Your task to perform on an android device: Add amazon basics triple a to the cart on target Image 0: 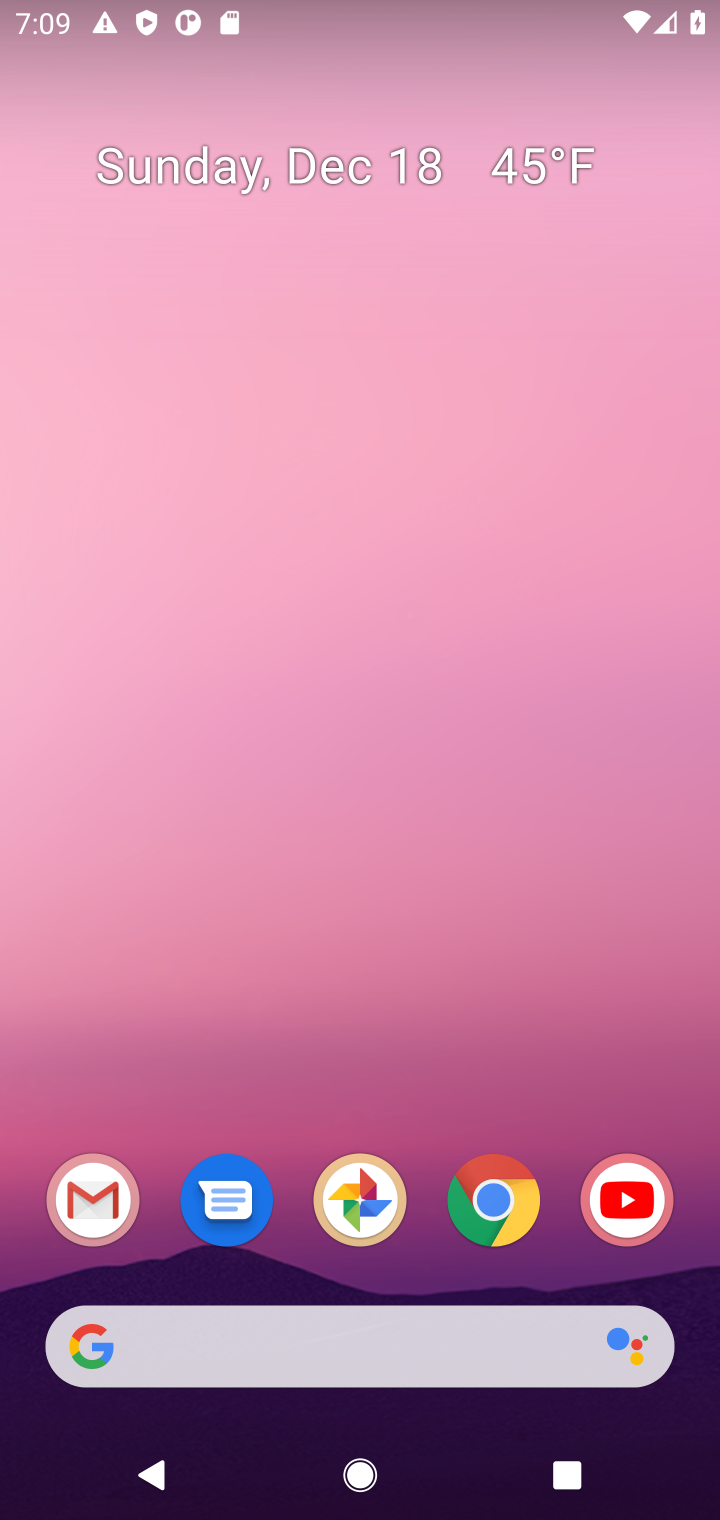
Step 0: click (503, 1220)
Your task to perform on an android device: Add amazon basics triple a to the cart on target Image 1: 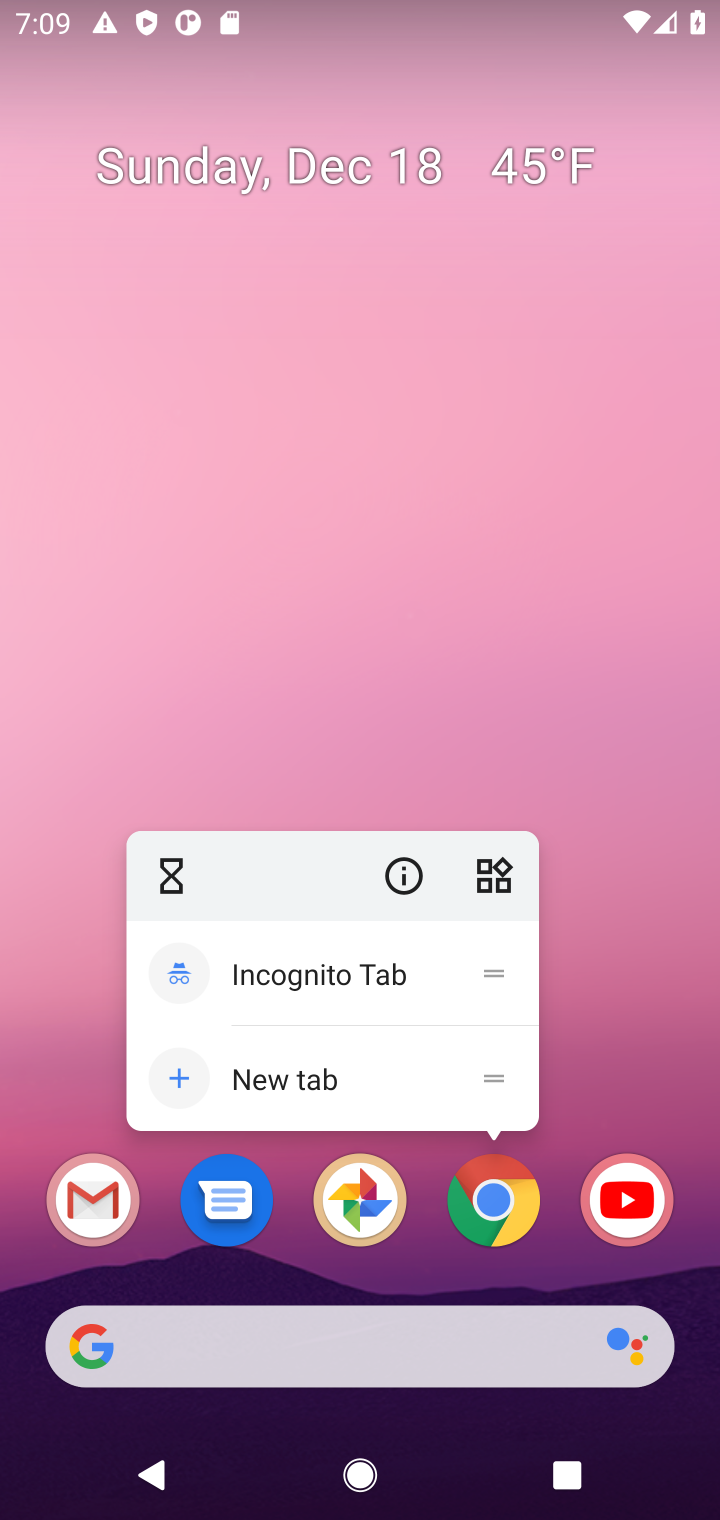
Step 1: click (499, 1213)
Your task to perform on an android device: Add amazon basics triple a to the cart on target Image 2: 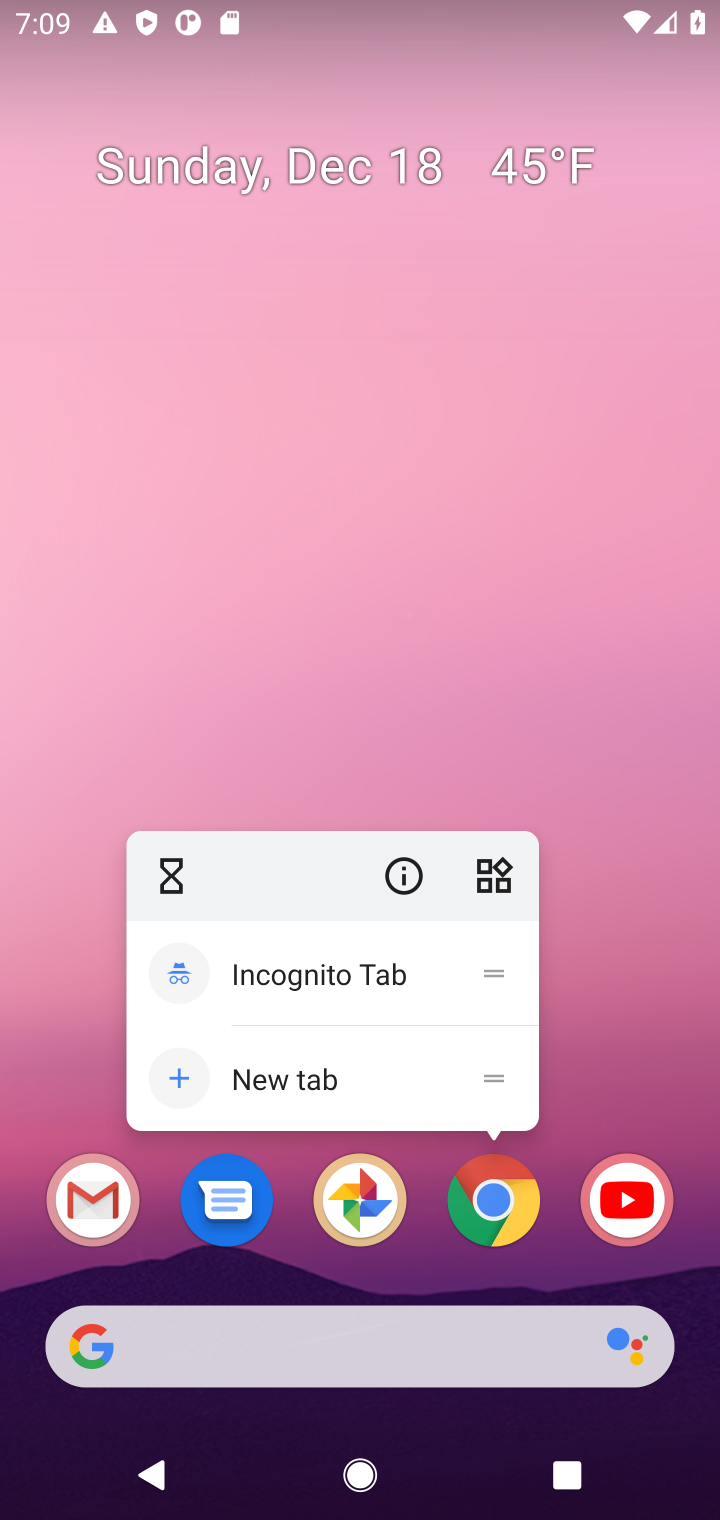
Step 2: click (499, 1213)
Your task to perform on an android device: Add amazon basics triple a to the cart on target Image 3: 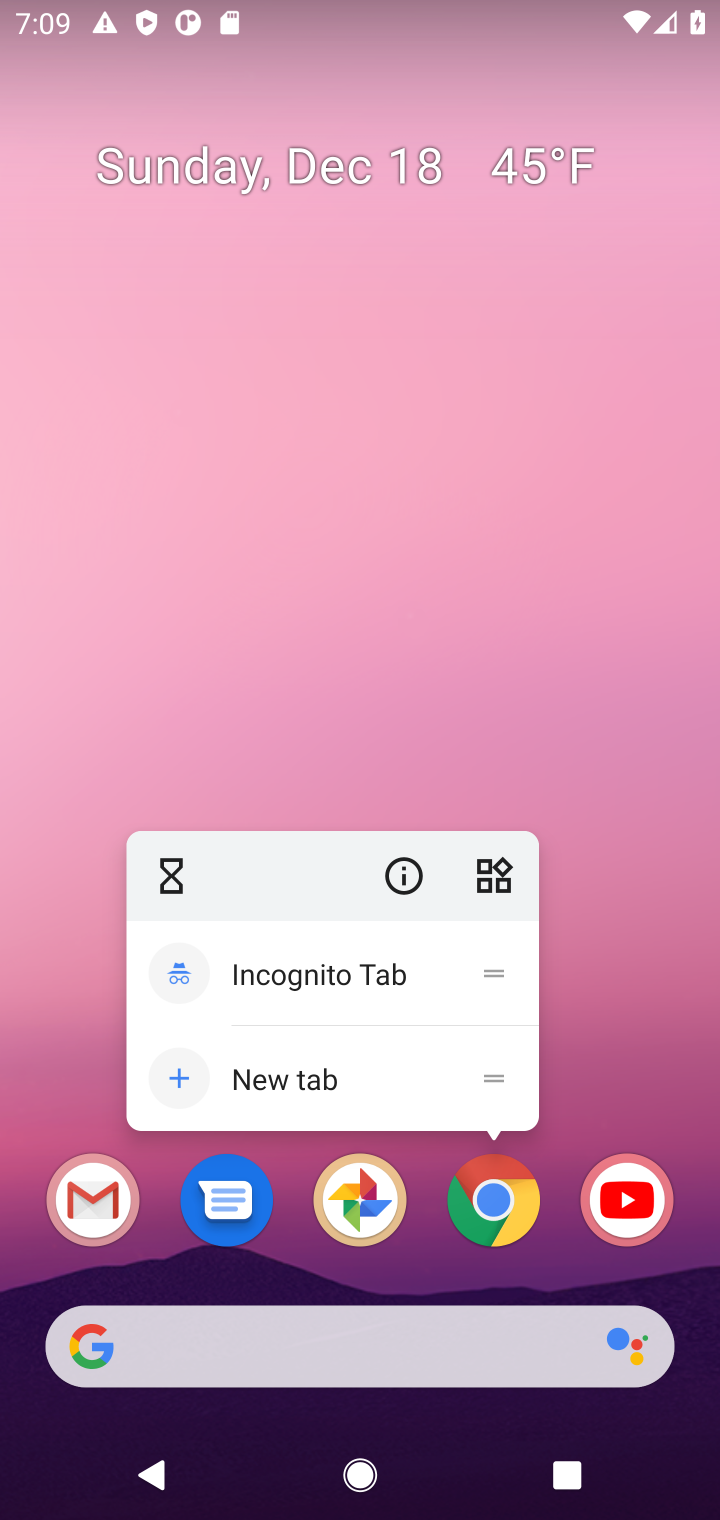
Step 3: click (499, 1213)
Your task to perform on an android device: Add amazon basics triple a to the cart on target Image 4: 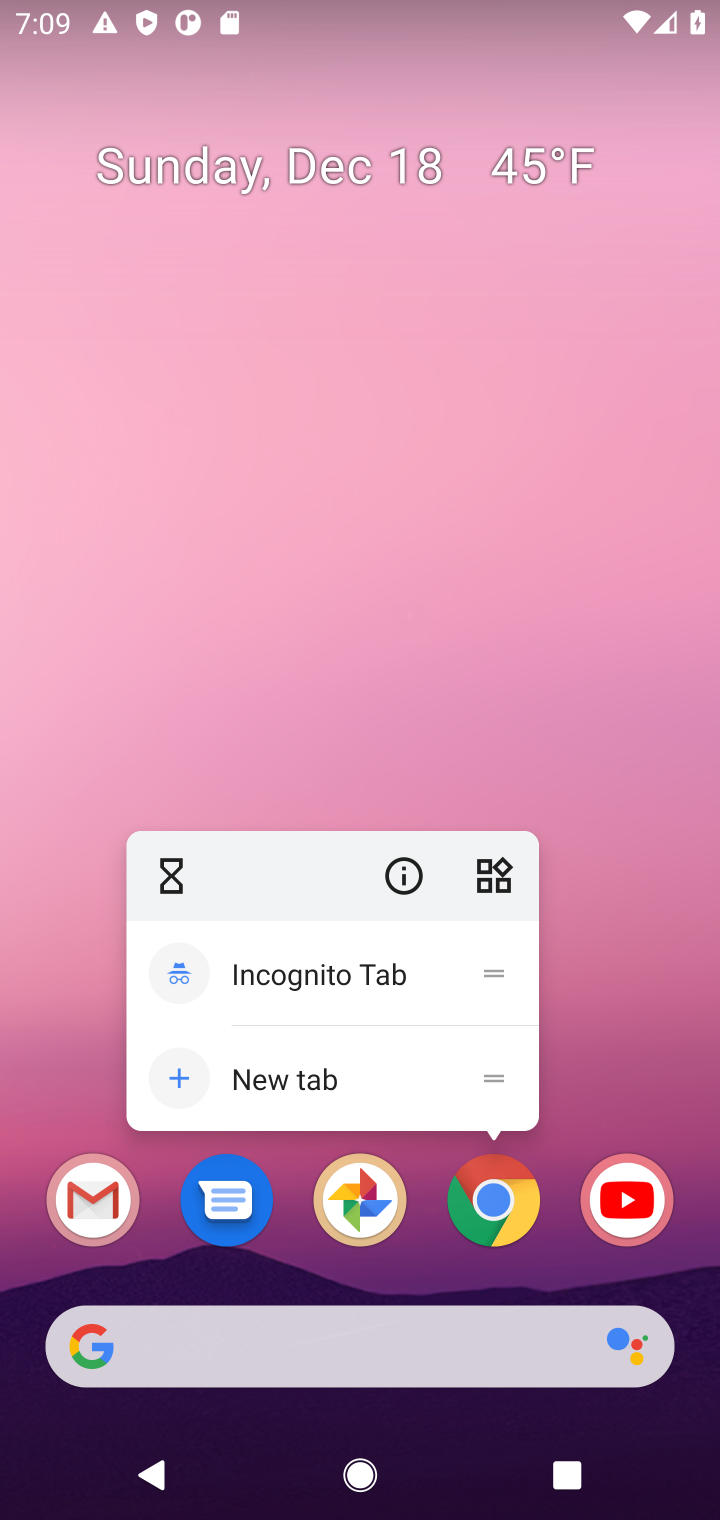
Step 4: click (499, 1213)
Your task to perform on an android device: Add amazon basics triple a to the cart on target Image 5: 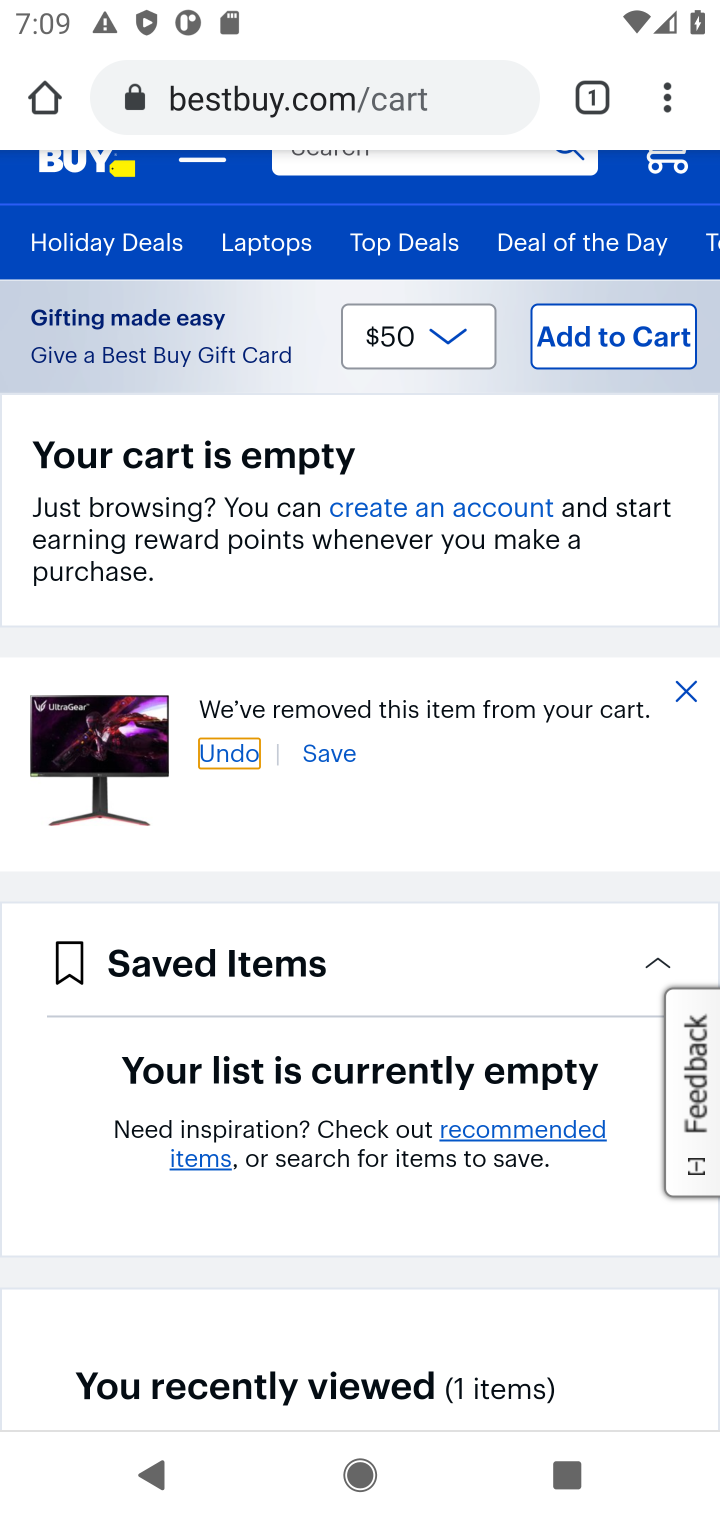
Step 5: click (325, 104)
Your task to perform on an android device: Add amazon basics triple a to the cart on target Image 6: 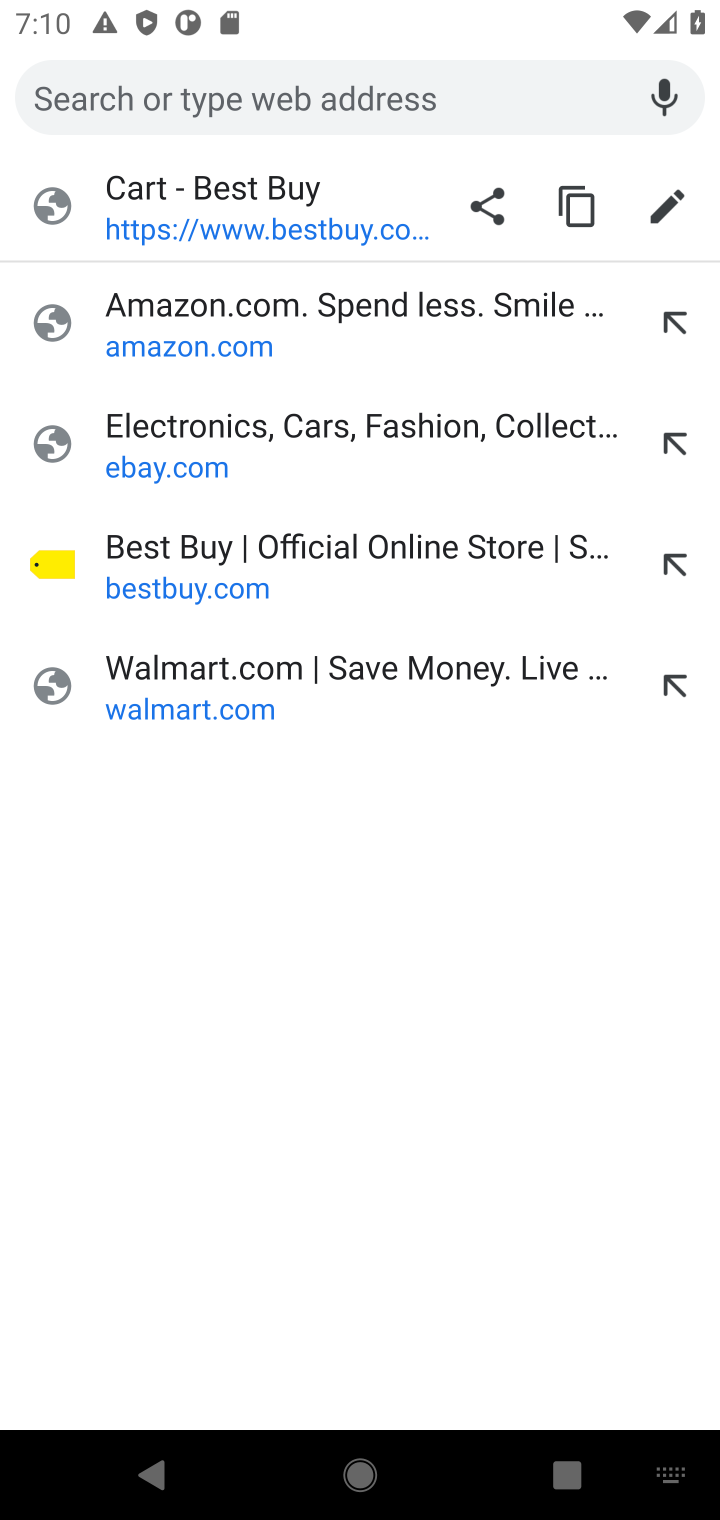
Step 6: type "target.com"
Your task to perform on an android device: Add amazon basics triple a to the cart on target Image 7: 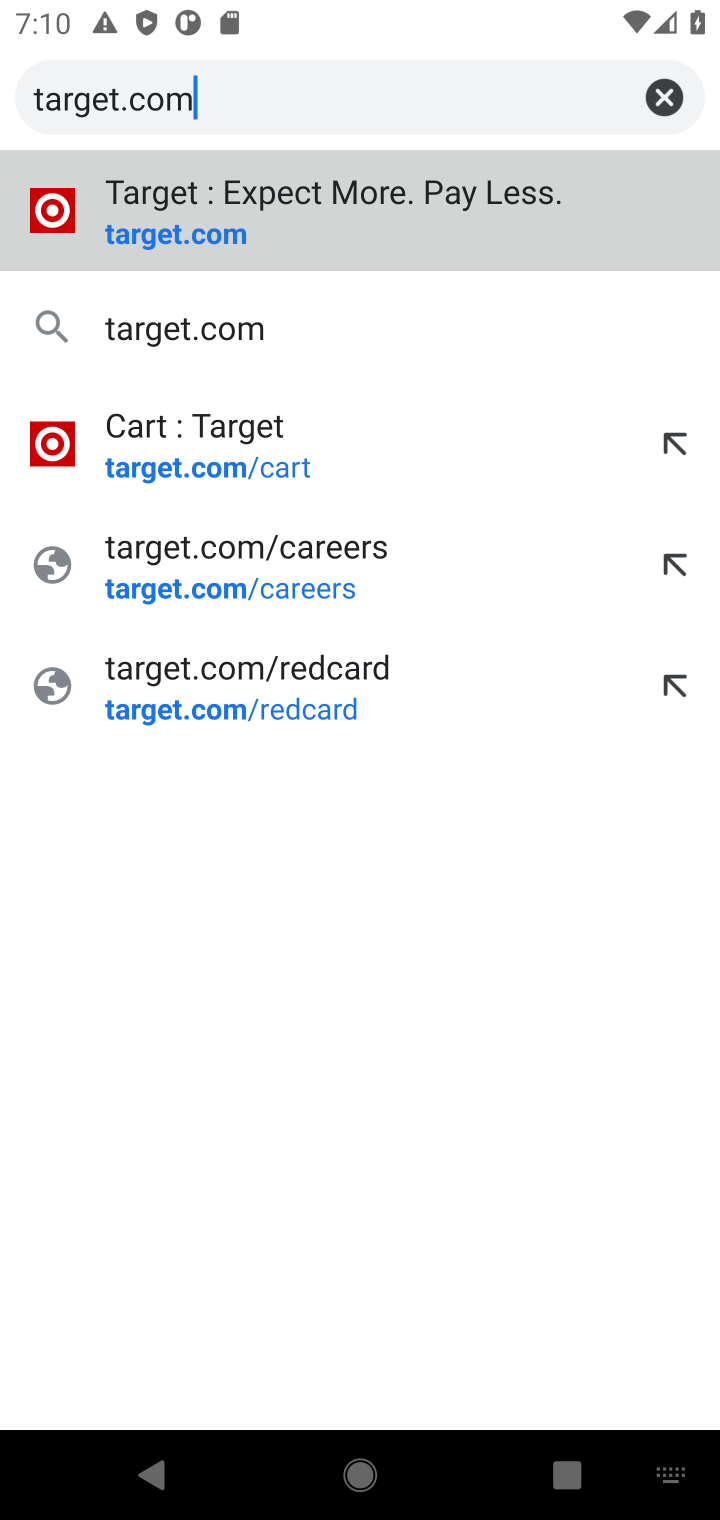
Step 7: click (182, 227)
Your task to perform on an android device: Add amazon basics triple a to the cart on target Image 8: 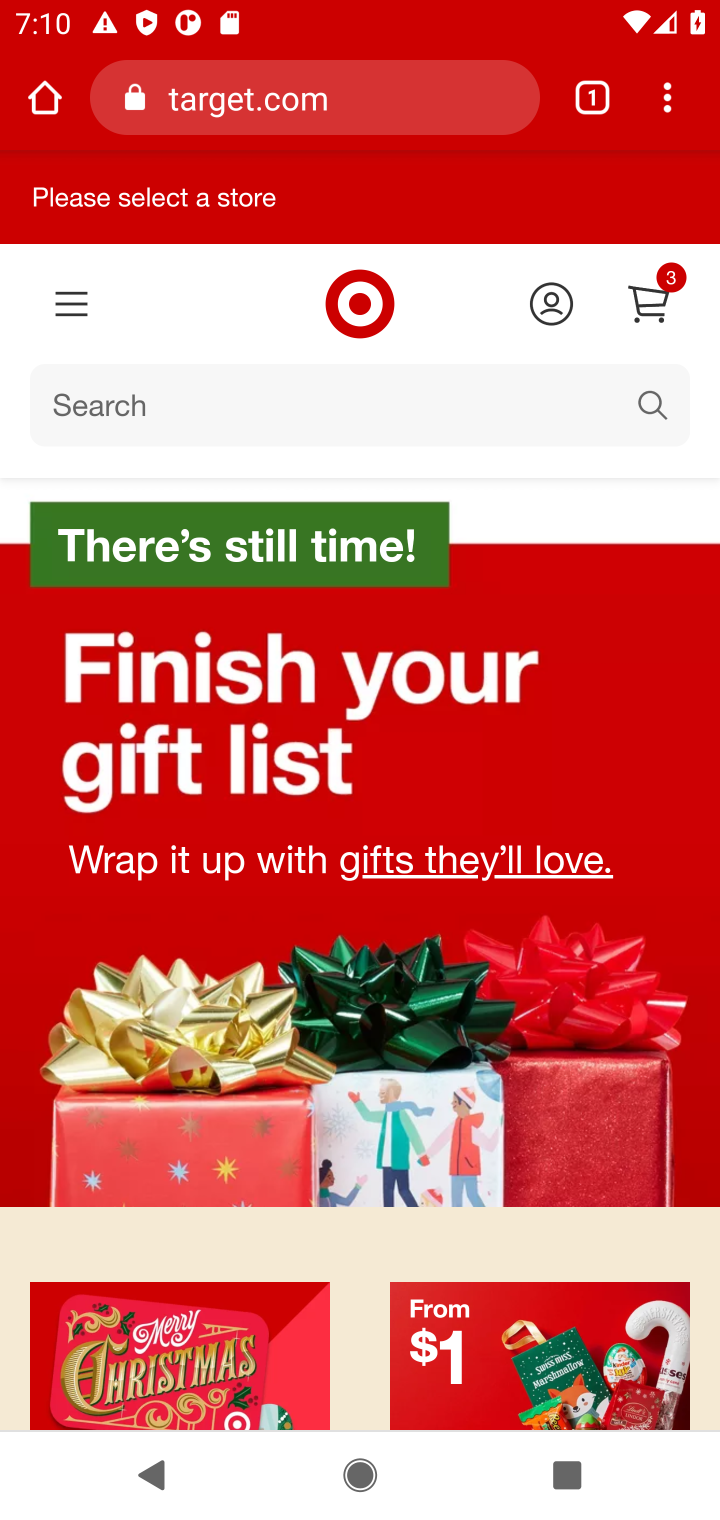
Step 8: click (77, 426)
Your task to perform on an android device: Add amazon basics triple a to the cart on target Image 9: 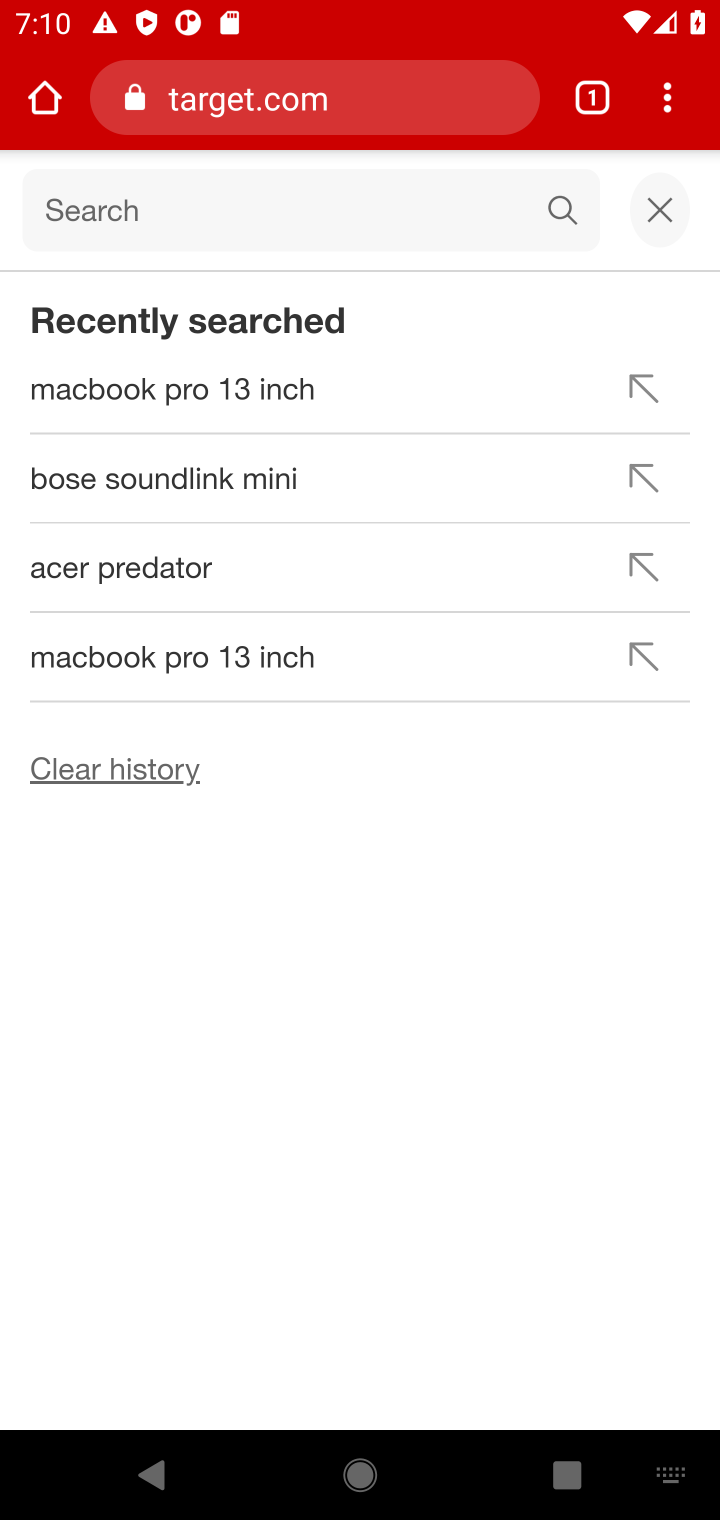
Step 9: type "amazon basics triple a"
Your task to perform on an android device: Add amazon basics triple a to the cart on target Image 10: 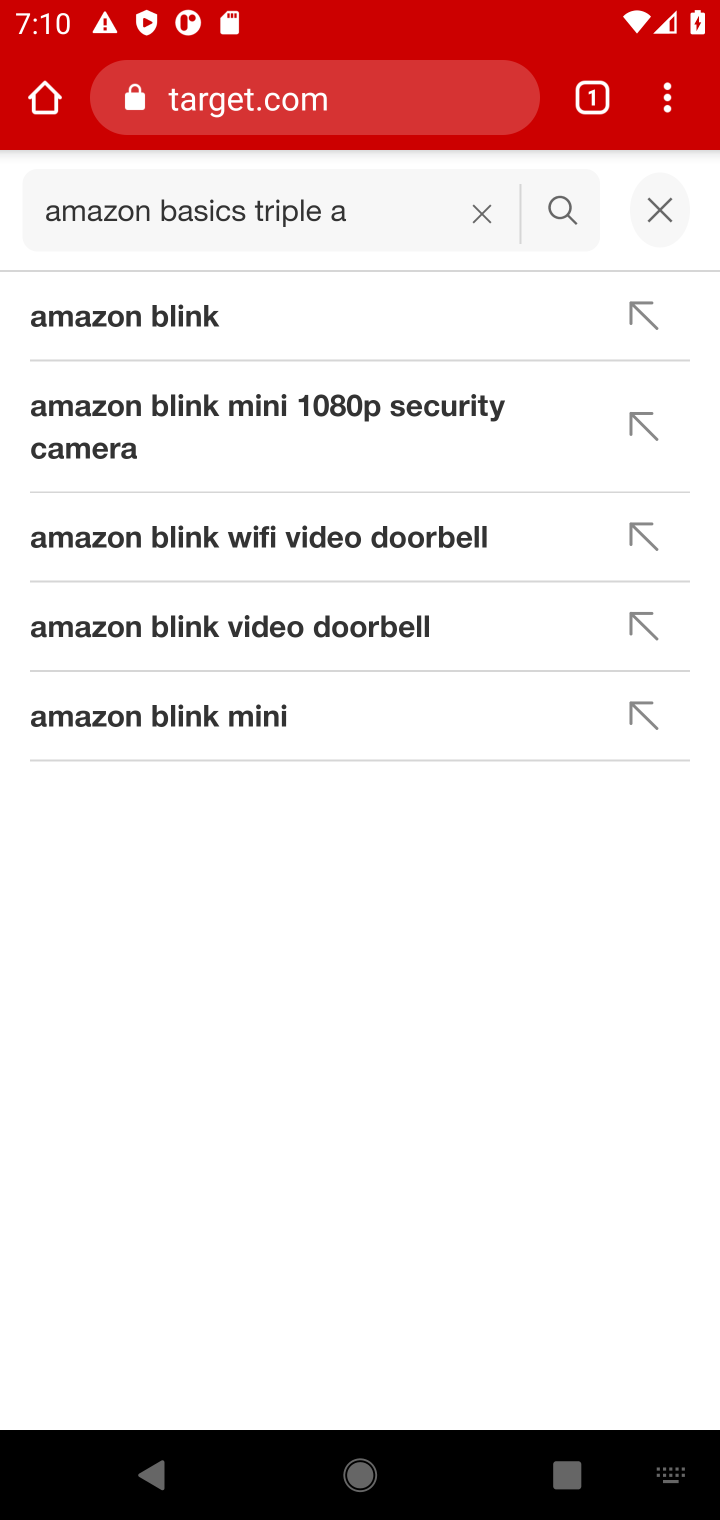
Step 10: click (559, 210)
Your task to perform on an android device: Add amazon basics triple a to the cart on target Image 11: 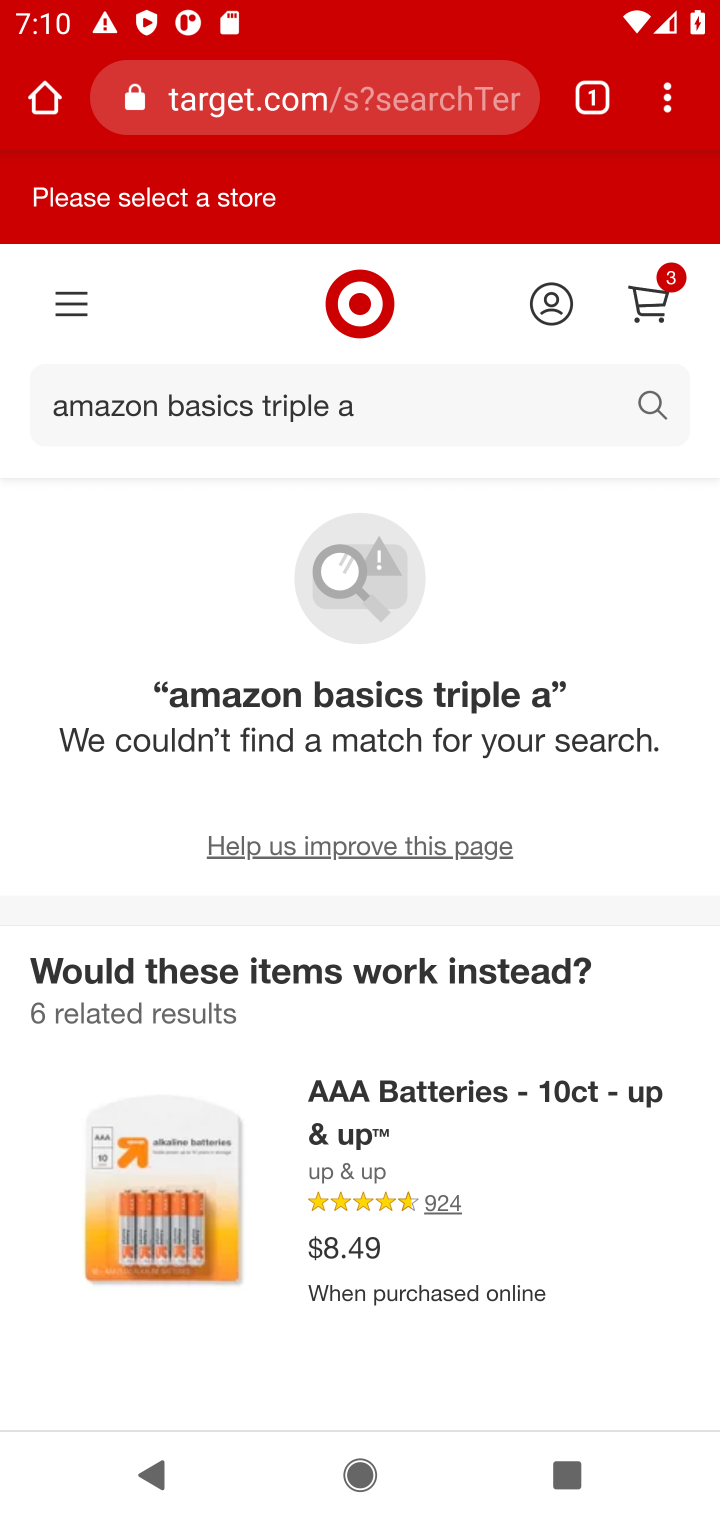
Step 11: task complete